Your task to perform on an android device: Add razer thresher to the cart on target.com Image 0: 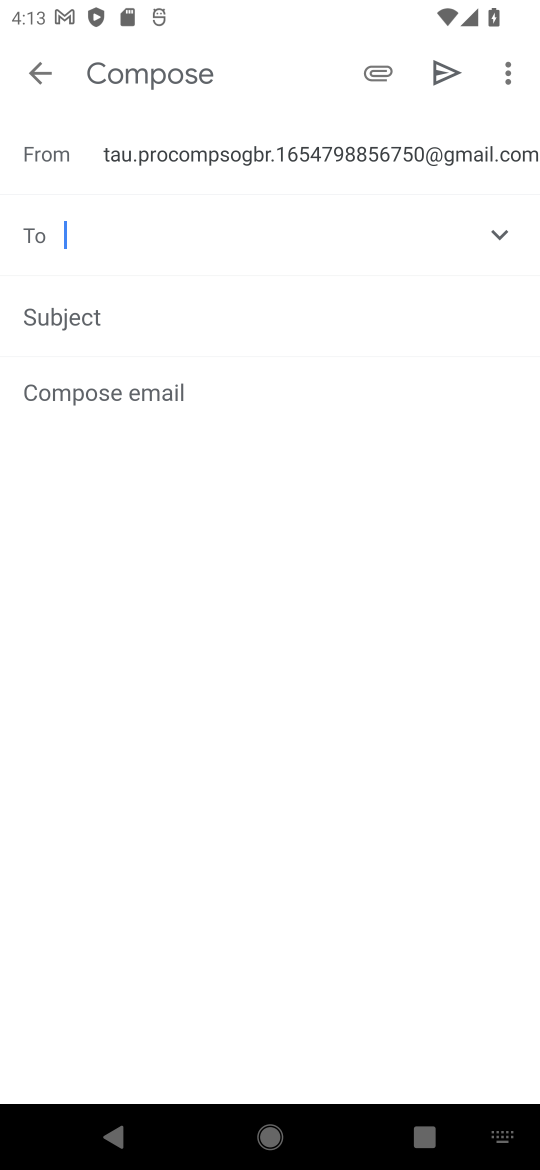
Step 0: press home button
Your task to perform on an android device: Add razer thresher to the cart on target.com Image 1: 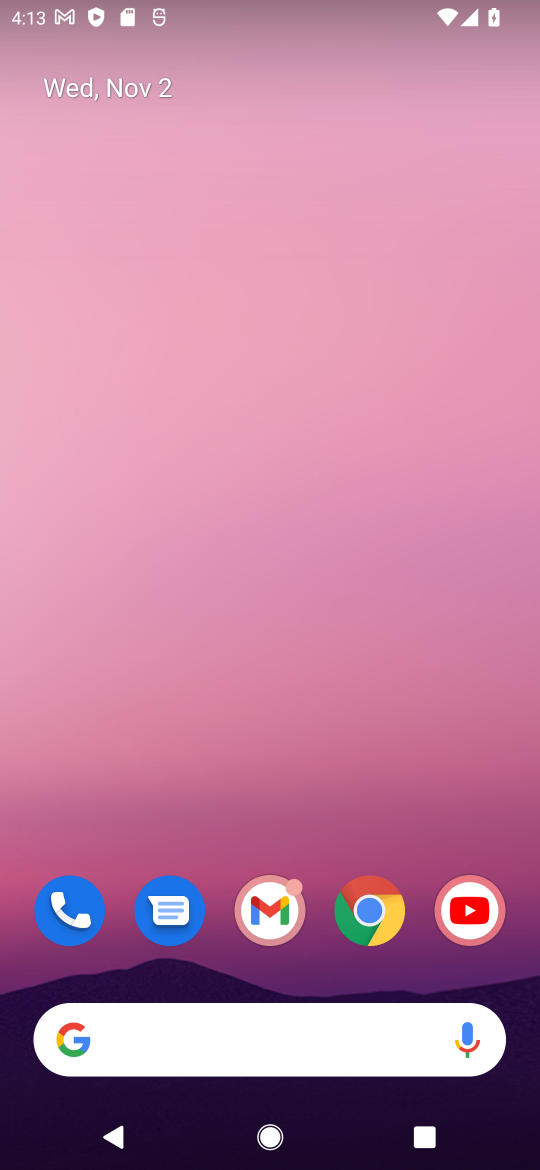
Step 1: click (378, 921)
Your task to perform on an android device: Add razer thresher to the cart on target.com Image 2: 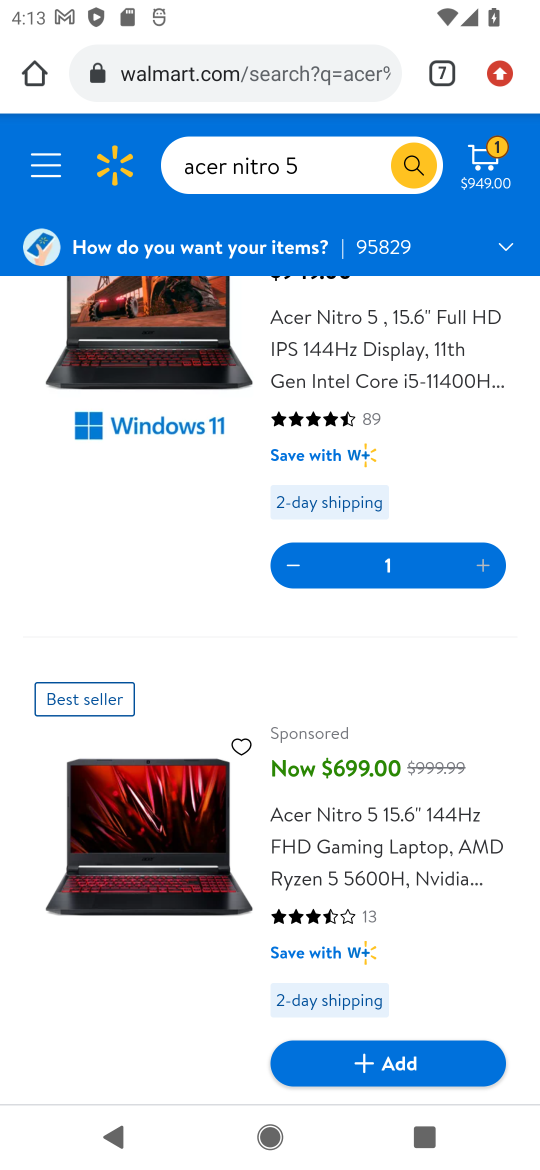
Step 2: click (445, 66)
Your task to perform on an android device: Add razer thresher to the cart on target.com Image 3: 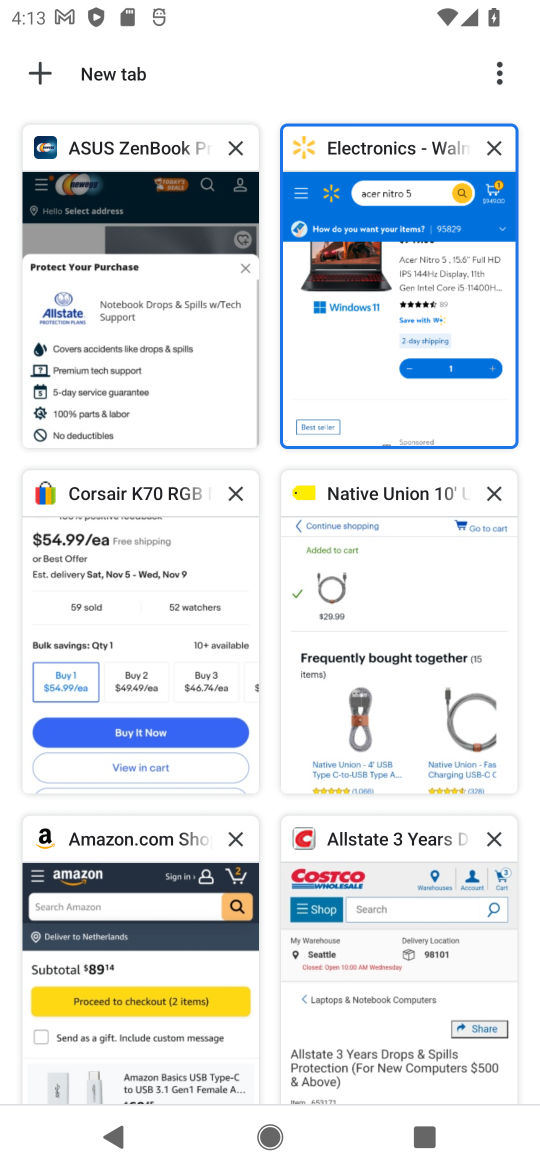
Step 3: drag from (384, 911) to (467, 0)
Your task to perform on an android device: Add razer thresher to the cart on target.com Image 4: 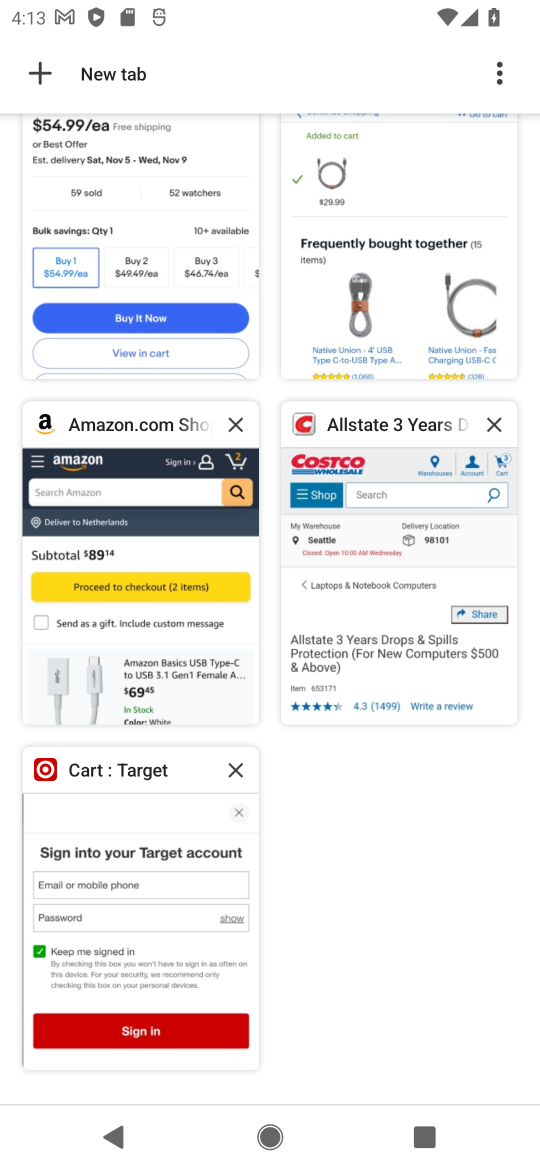
Step 4: click (150, 909)
Your task to perform on an android device: Add razer thresher to the cart on target.com Image 5: 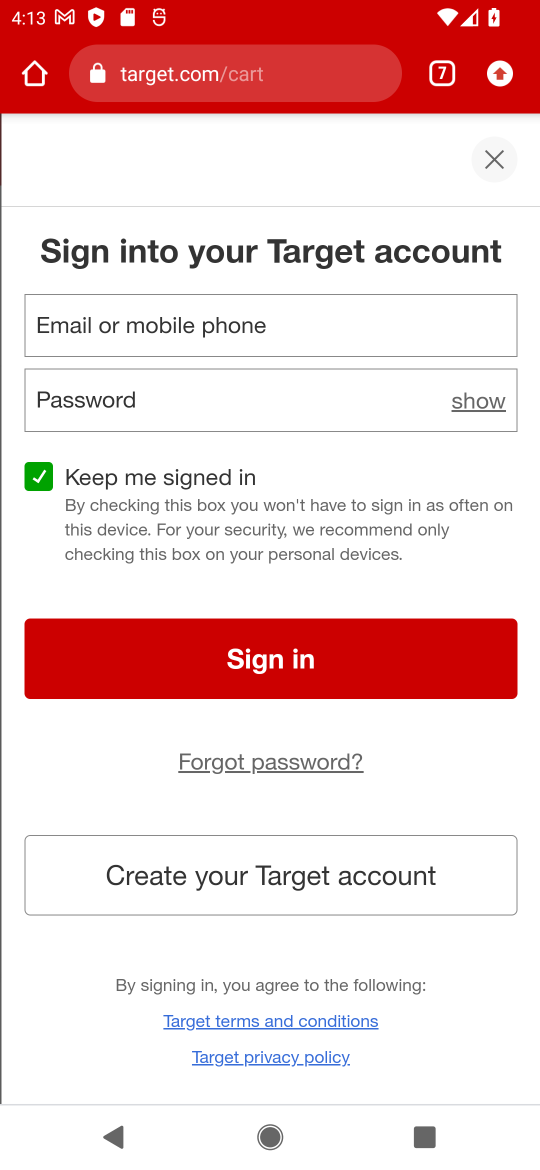
Step 5: click (493, 151)
Your task to perform on an android device: Add razer thresher to the cart on target.com Image 6: 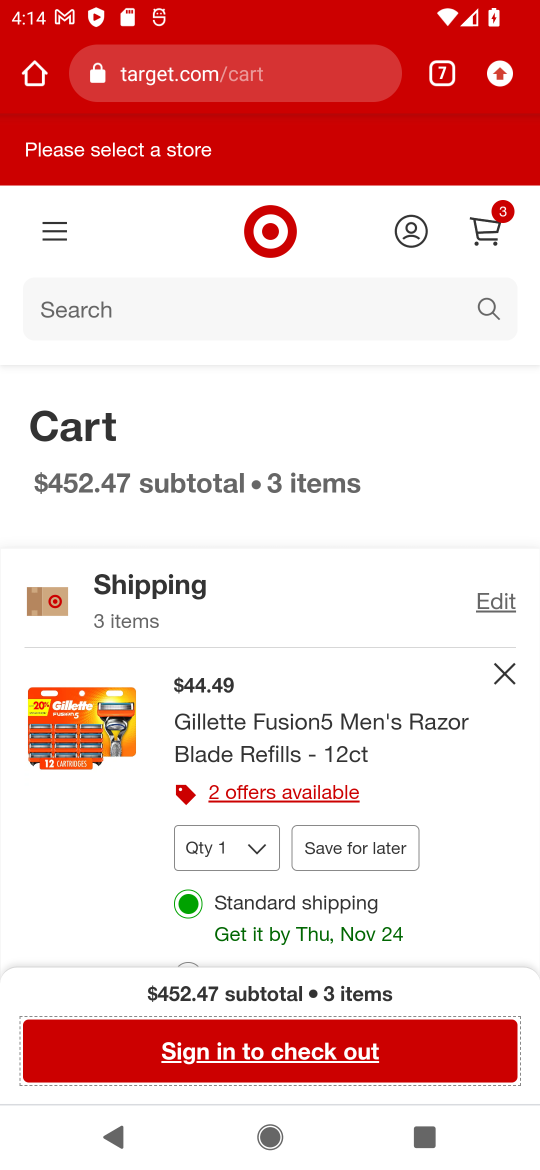
Step 6: click (138, 307)
Your task to perform on an android device: Add razer thresher to the cart on target.com Image 7: 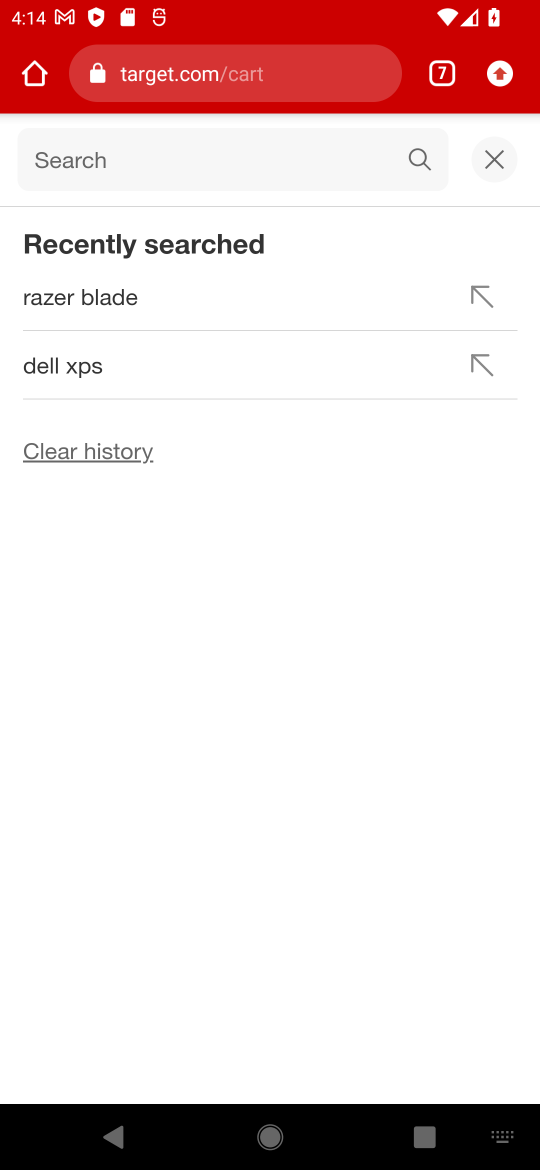
Step 7: type "razer thresher"
Your task to perform on an android device: Add razer thresher to the cart on target.com Image 8: 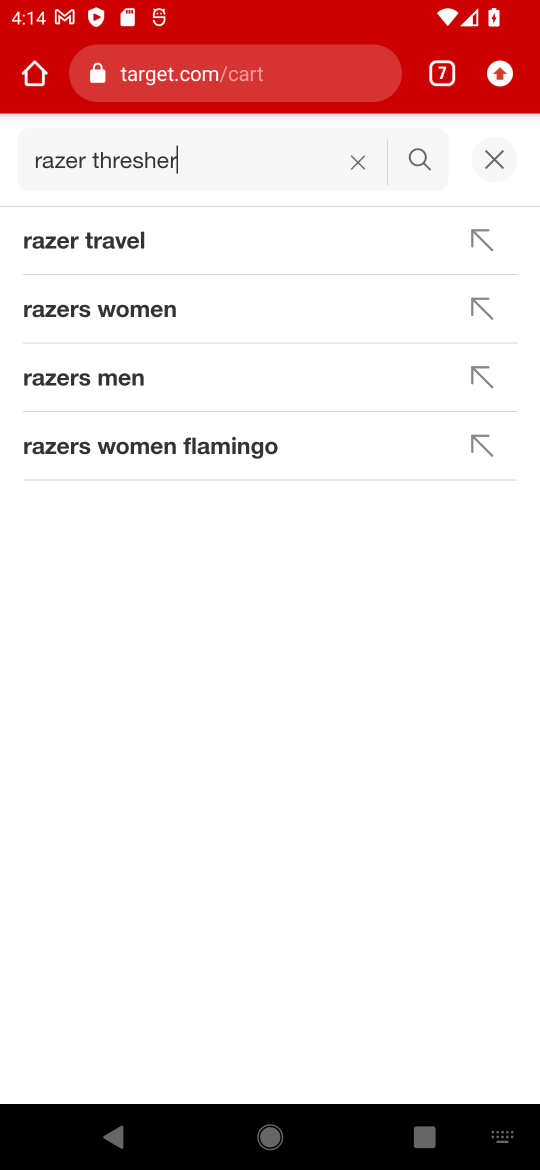
Step 8: click (416, 160)
Your task to perform on an android device: Add razer thresher to the cart on target.com Image 9: 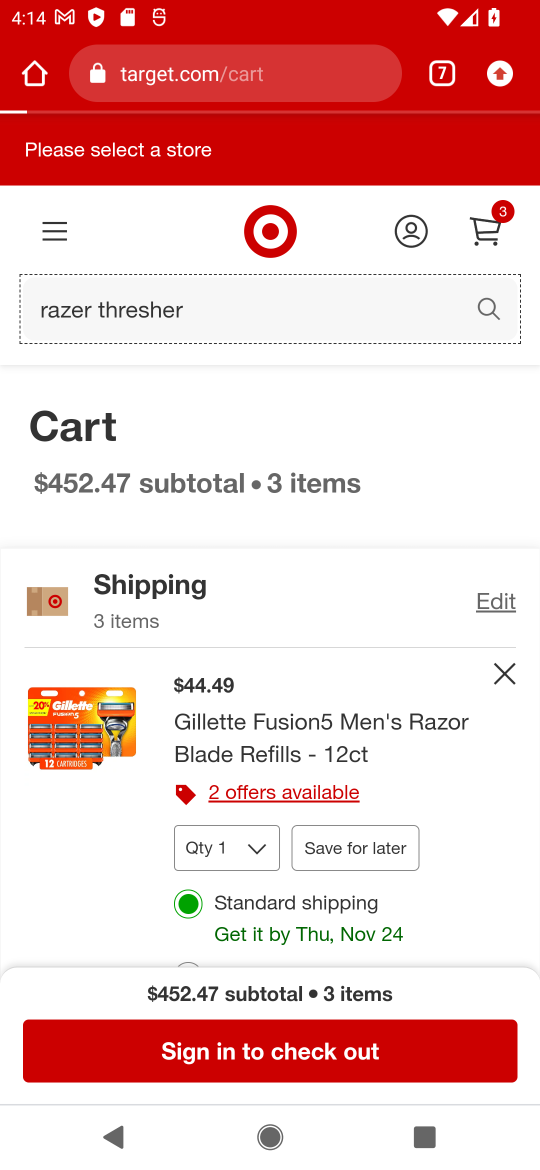
Step 9: click (416, 160)
Your task to perform on an android device: Add razer thresher to the cart on target.com Image 10: 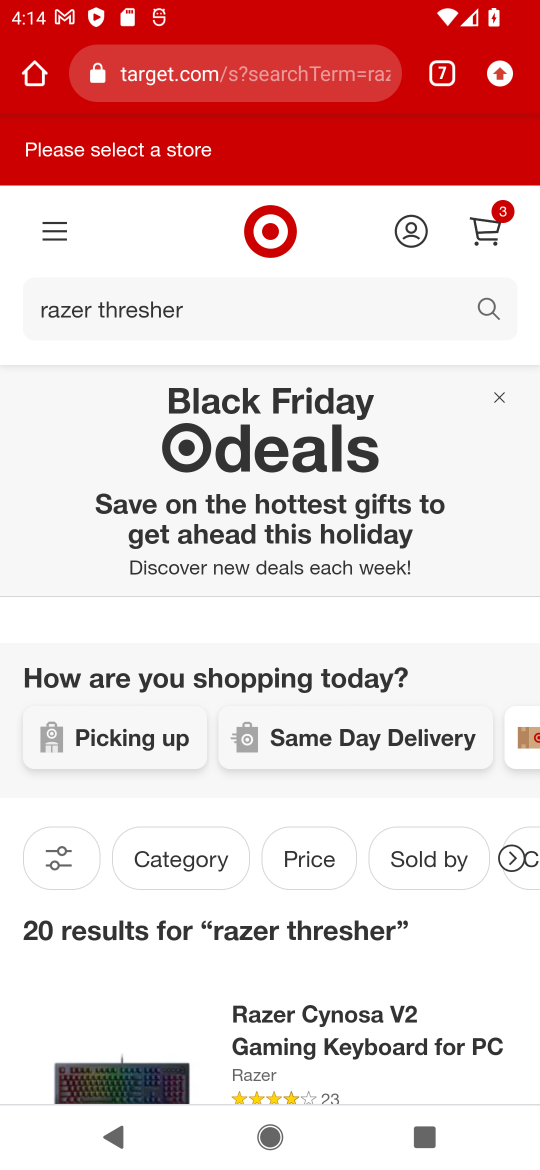
Step 10: drag from (335, 1057) to (434, 396)
Your task to perform on an android device: Add razer thresher to the cart on target.com Image 11: 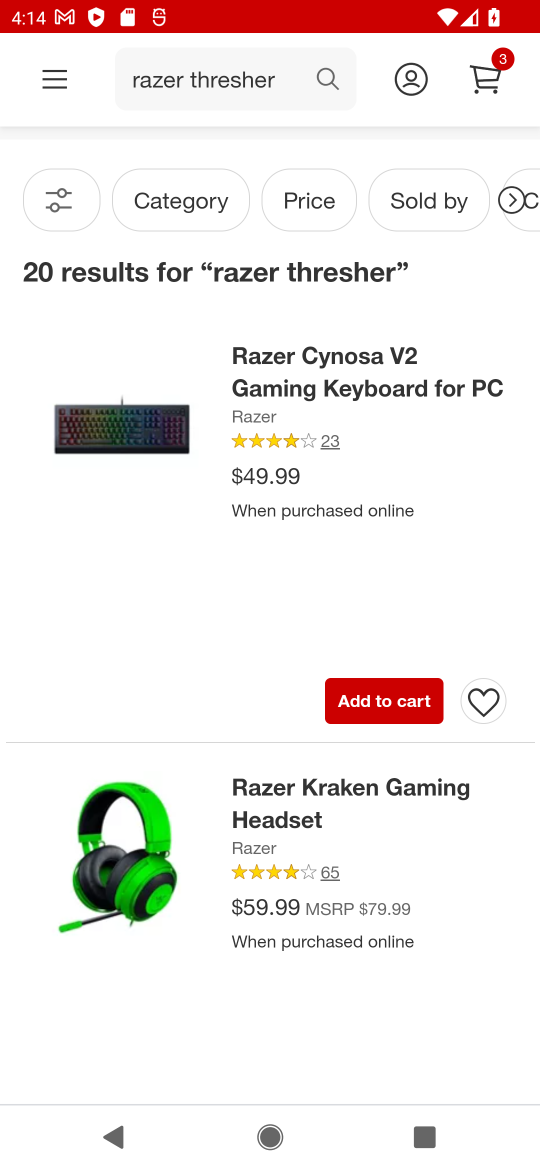
Step 11: click (382, 704)
Your task to perform on an android device: Add razer thresher to the cart on target.com Image 12: 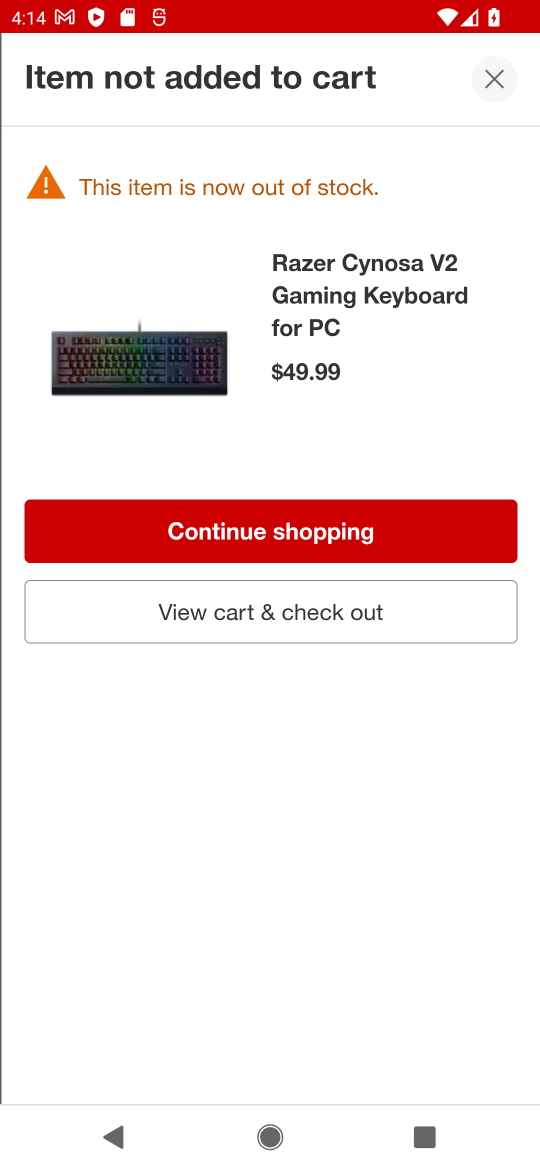
Step 12: task complete